Your task to perform on an android device: allow notifications from all sites in the chrome app Image 0: 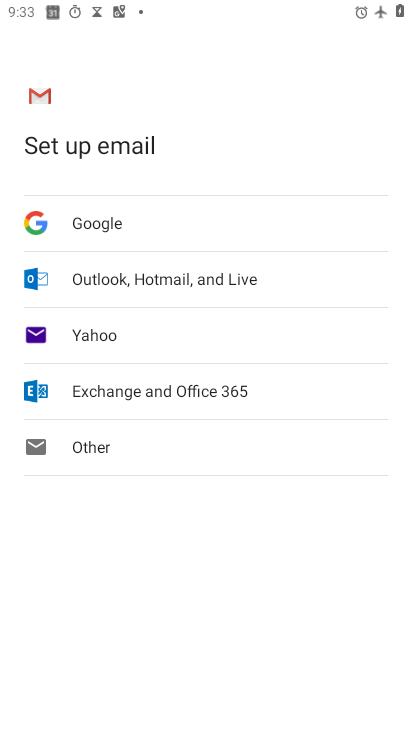
Step 0: press home button
Your task to perform on an android device: allow notifications from all sites in the chrome app Image 1: 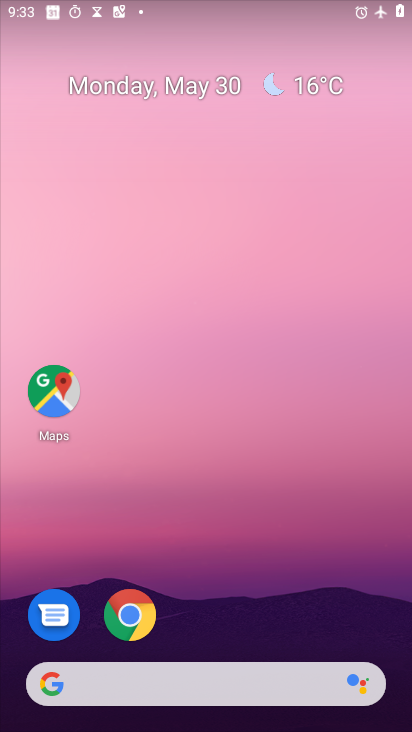
Step 1: drag from (299, 610) to (287, 84)
Your task to perform on an android device: allow notifications from all sites in the chrome app Image 2: 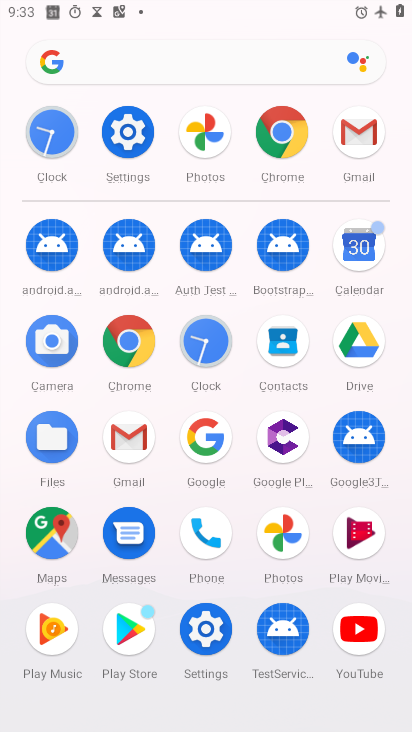
Step 2: click (263, 129)
Your task to perform on an android device: allow notifications from all sites in the chrome app Image 3: 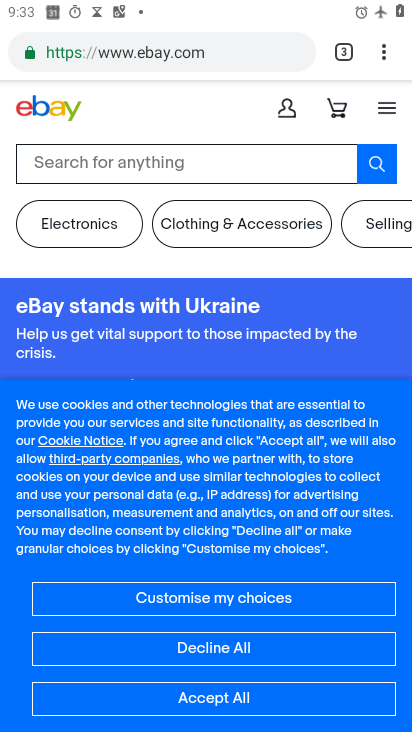
Step 3: drag from (385, 46) to (233, 584)
Your task to perform on an android device: allow notifications from all sites in the chrome app Image 4: 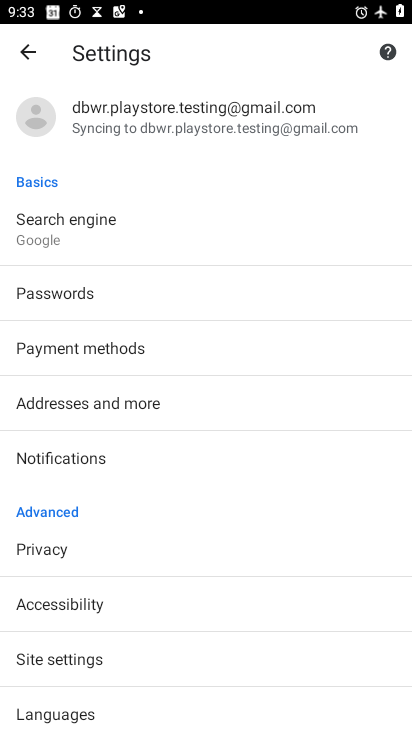
Step 4: drag from (157, 651) to (191, 244)
Your task to perform on an android device: allow notifications from all sites in the chrome app Image 5: 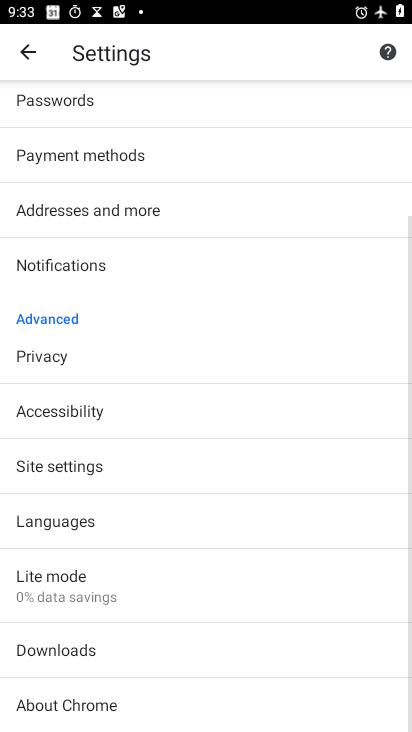
Step 5: click (24, 477)
Your task to perform on an android device: allow notifications from all sites in the chrome app Image 6: 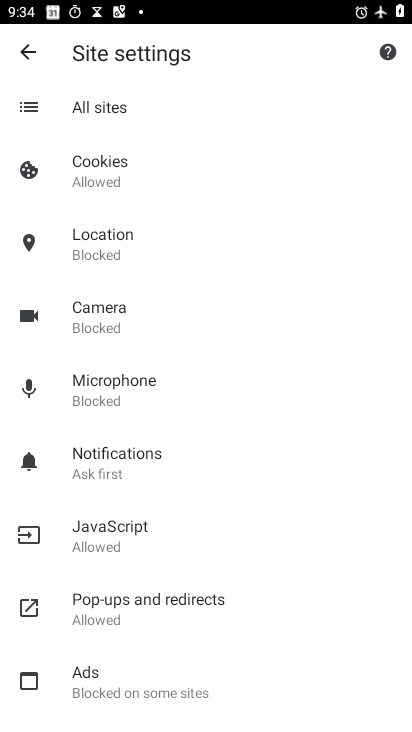
Step 6: drag from (163, 610) to (191, 196)
Your task to perform on an android device: allow notifications from all sites in the chrome app Image 7: 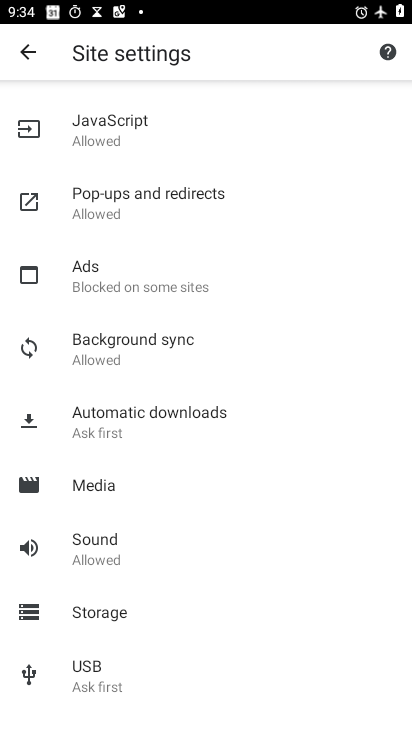
Step 7: drag from (203, 262) to (238, 630)
Your task to perform on an android device: allow notifications from all sites in the chrome app Image 8: 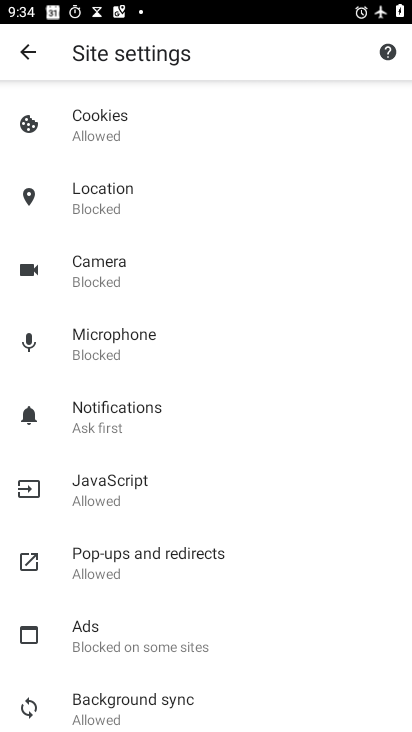
Step 8: click (111, 413)
Your task to perform on an android device: allow notifications from all sites in the chrome app Image 9: 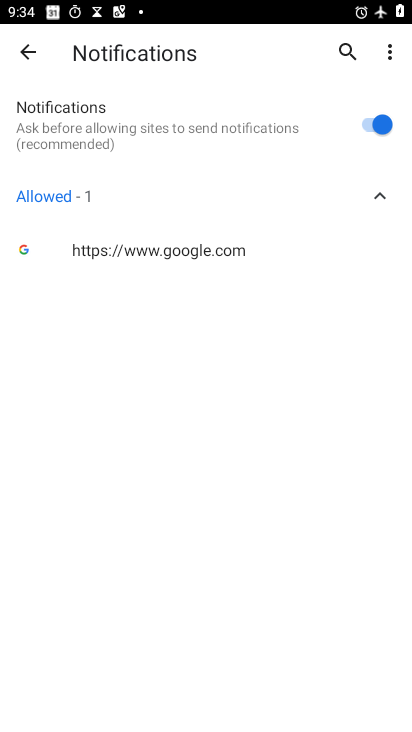
Step 9: task complete